Your task to perform on an android device: Go to display settings Image 0: 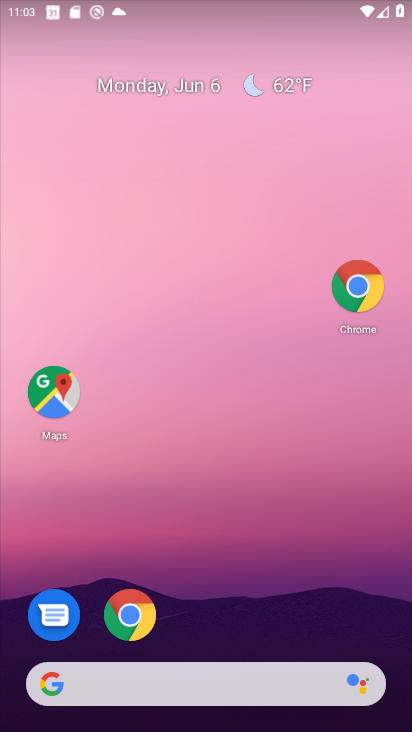
Step 0: drag from (240, 710) to (194, 142)
Your task to perform on an android device: Go to display settings Image 1: 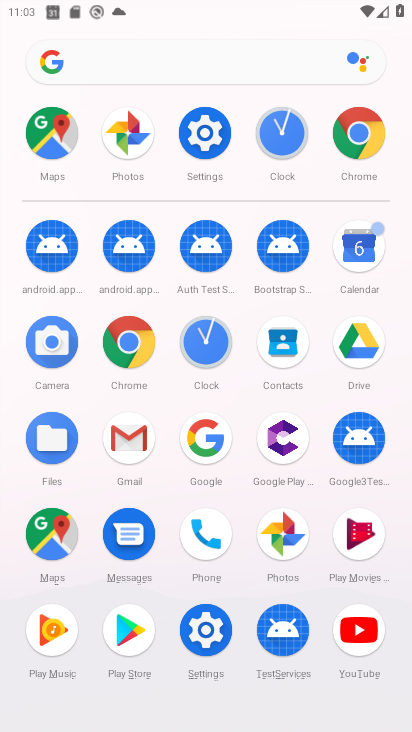
Step 1: click (204, 126)
Your task to perform on an android device: Go to display settings Image 2: 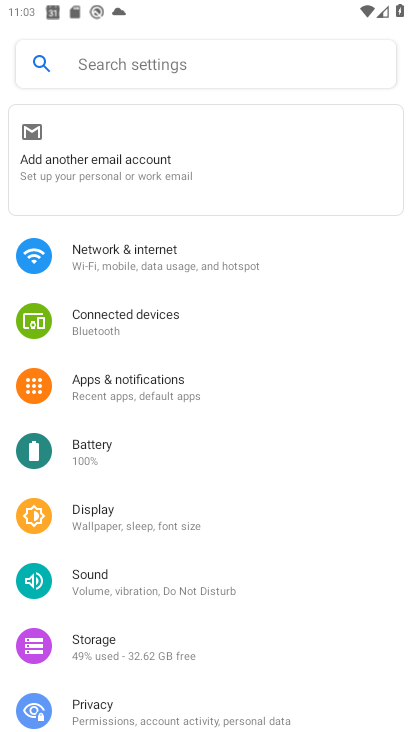
Step 2: click (93, 521)
Your task to perform on an android device: Go to display settings Image 3: 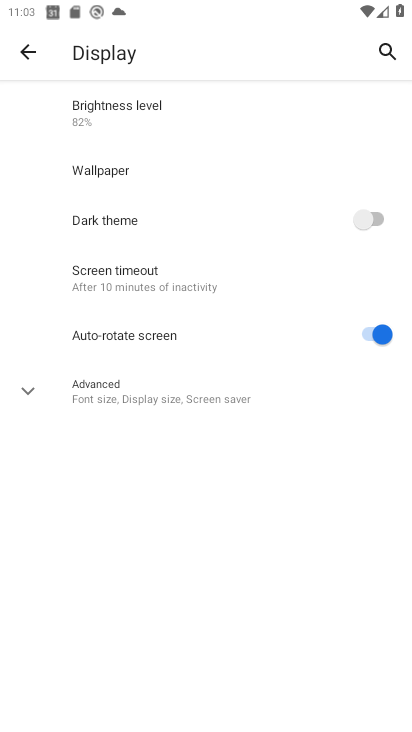
Step 3: task complete